Your task to perform on an android device: uninstall "Clock" Image 0: 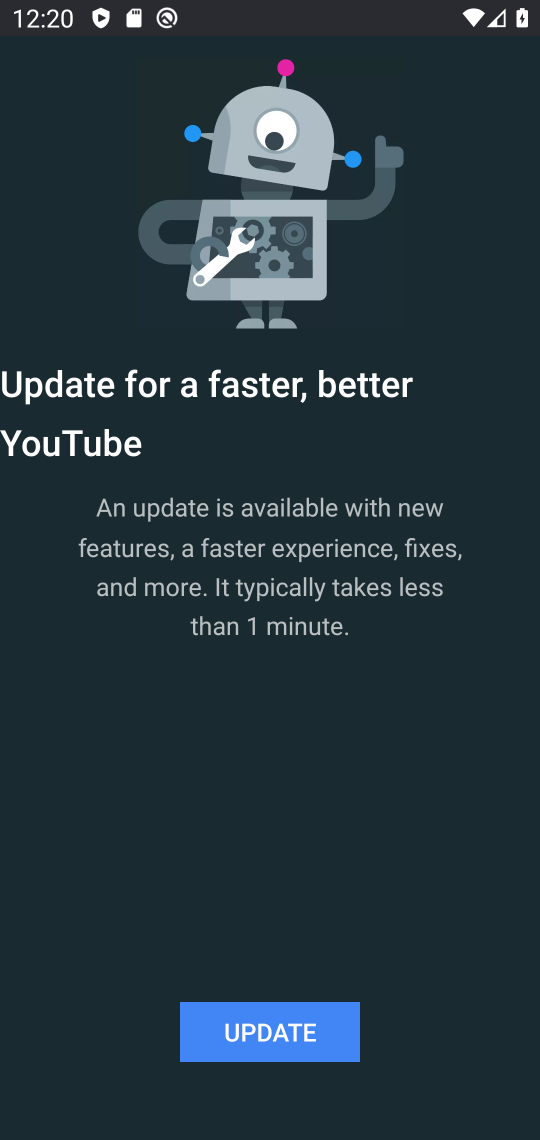
Step 0: press home button
Your task to perform on an android device: uninstall "Clock" Image 1: 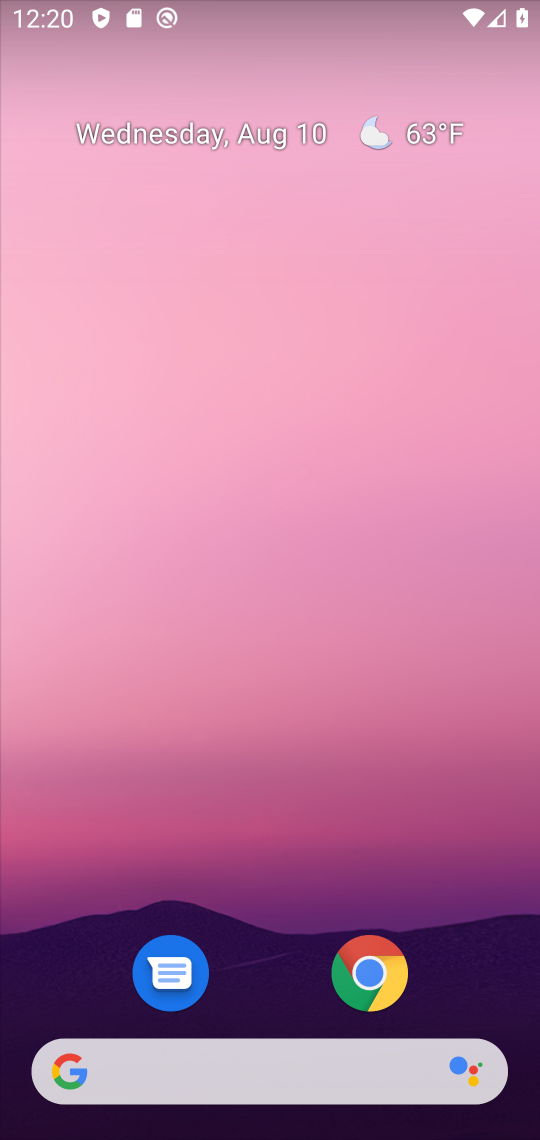
Step 1: drag from (244, 859) to (350, 185)
Your task to perform on an android device: uninstall "Clock" Image 2: 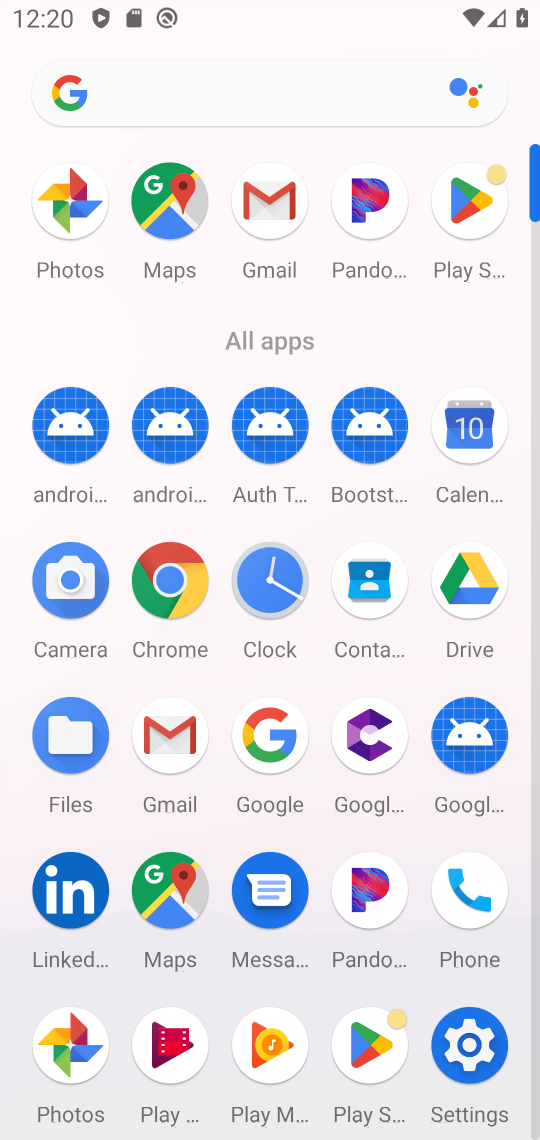
Step 2: click (246, 579)
Your task to perform on an android device: uninstall "Clock" Image 3: 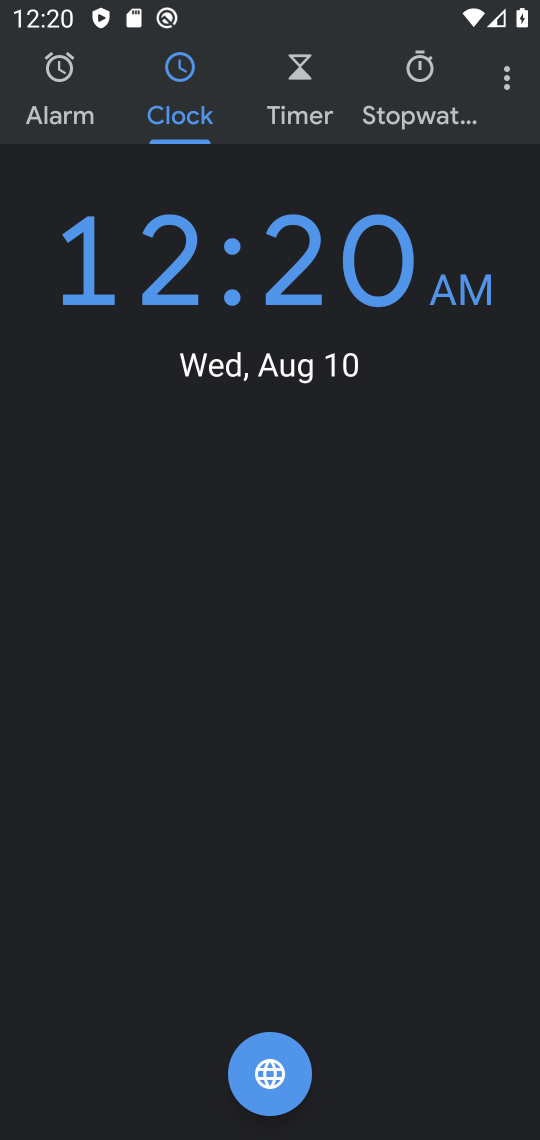
Step 3: click (193, 70)
Your task to perform on an android device: uninstall "Clock" Image 4: 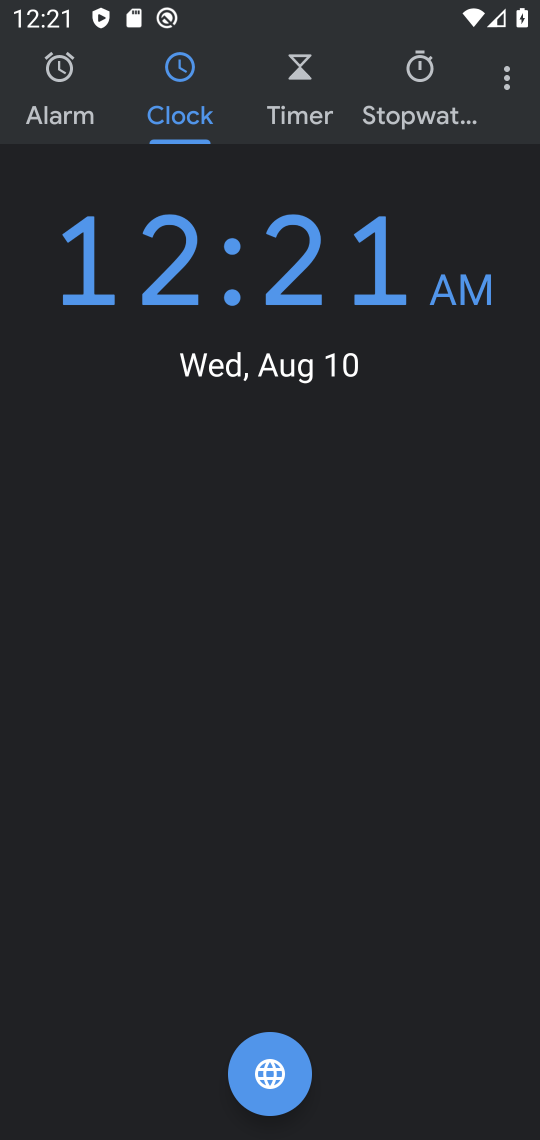
Step 4: press back button
Your task to perform on an android device: uninstall "Clock" Image 5: 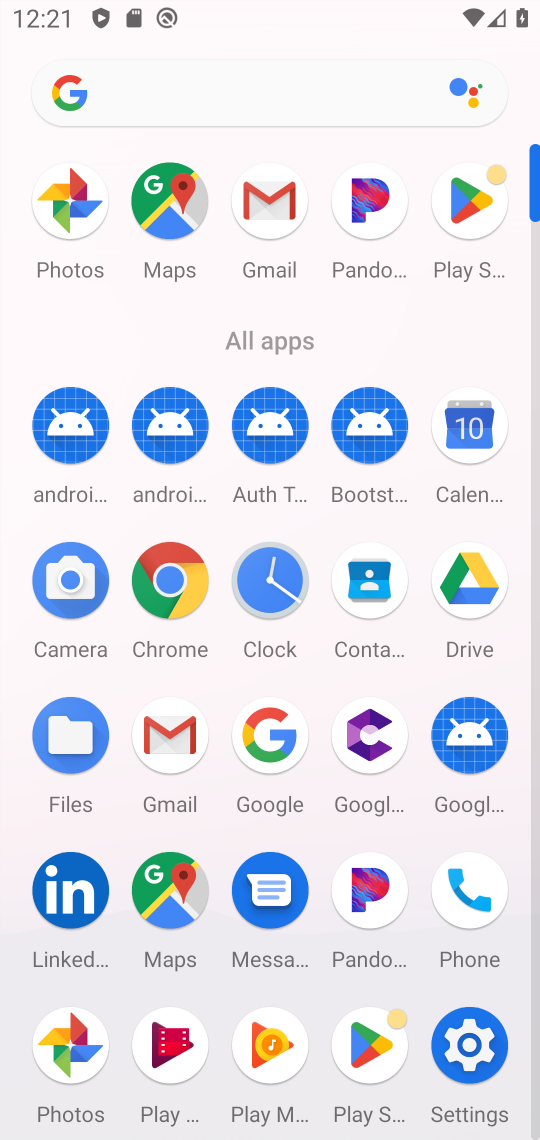
Step 5: click (475, 212)
Your task to perform on an android device: uninstall "Clock" Image 6: 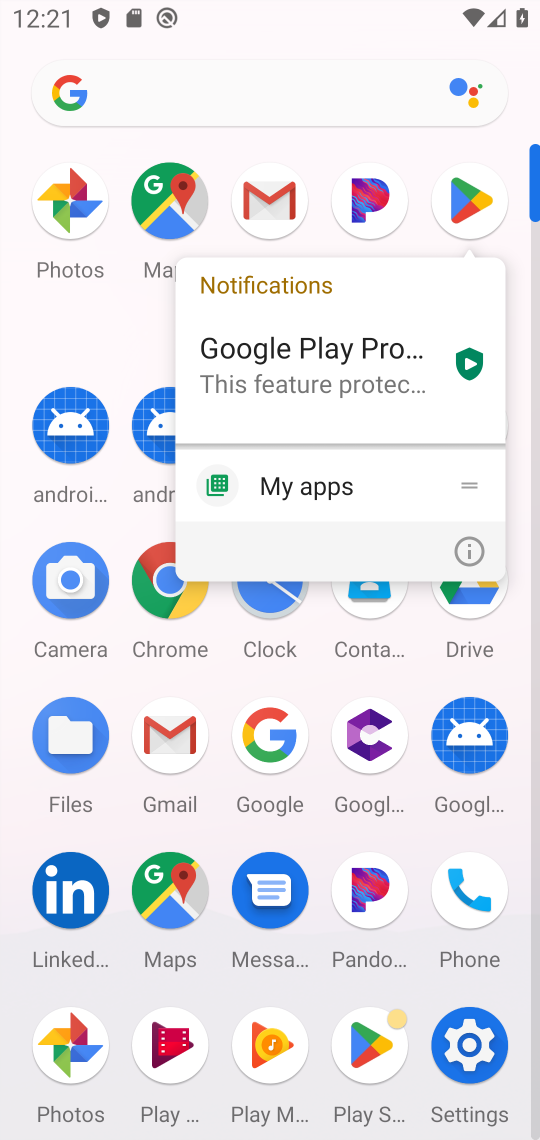
Step 6: click (475, 212)
Your task to perform on an android device: uninstall "Clock" Image 7: 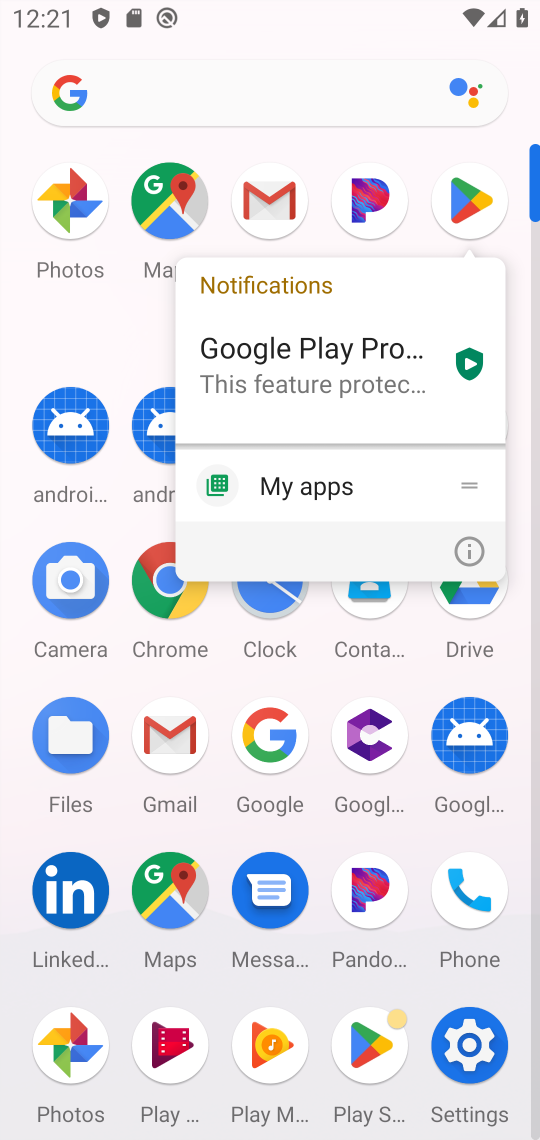
Step 7: click (460, 193)
Your task to perform on an android device: uninstall "Clock" Image 8: 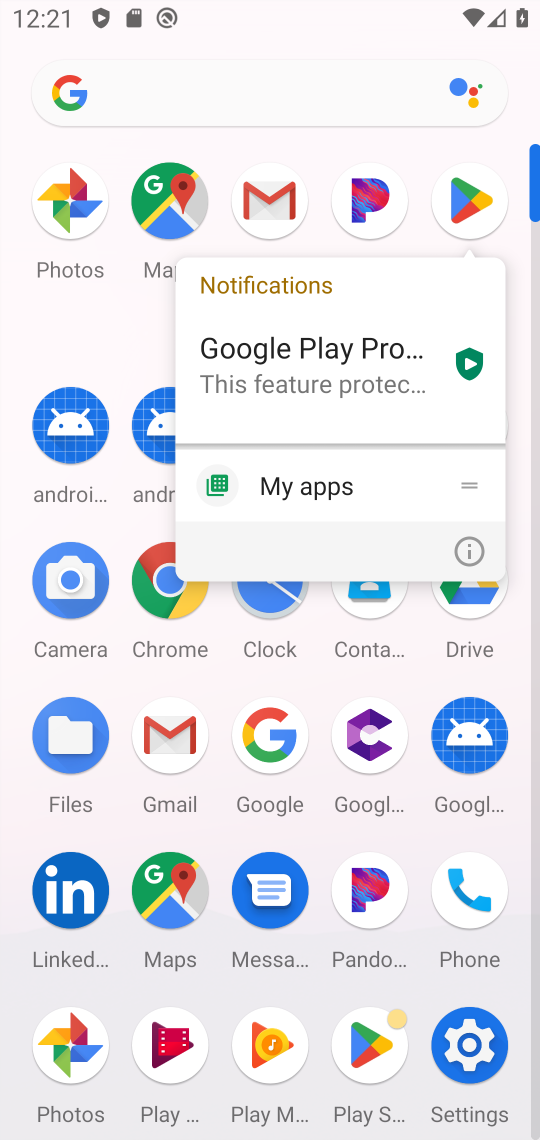
Step 8: click (460, 205)
Your task to perform on an android device: uninstall "Clock" Image 9: 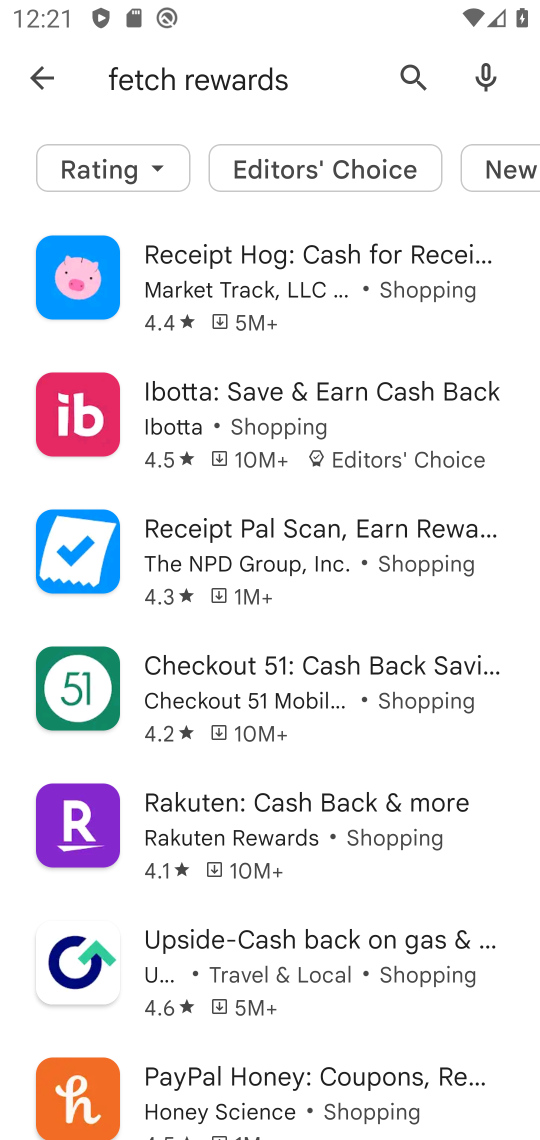
Step 9: click (416, 71)
Your task to perform on an android device: uninstall "Clock" Image 10: 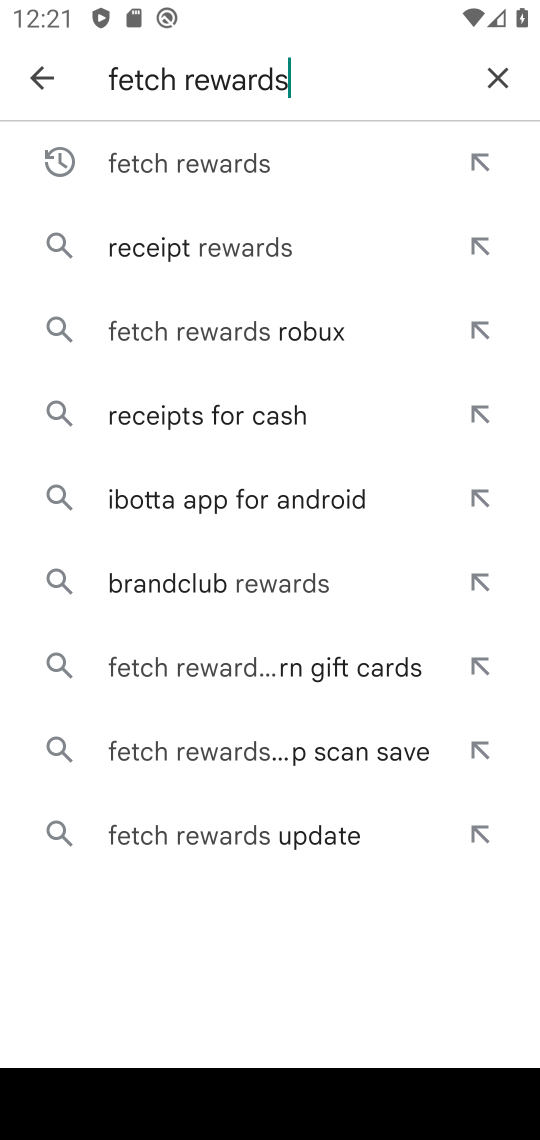
Step 10: click (508, 73)
Your task to perform on an android device: uninstall "Clock" Image 11: 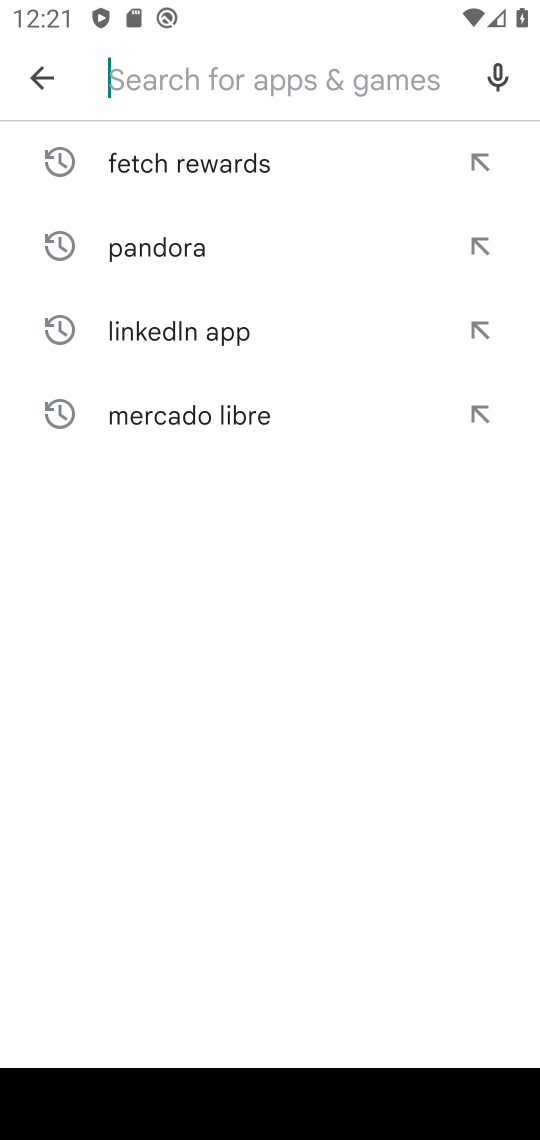
Step 11: click (186, 80)
Your task to perform on an android device: uninstall "Clock" Image 12: 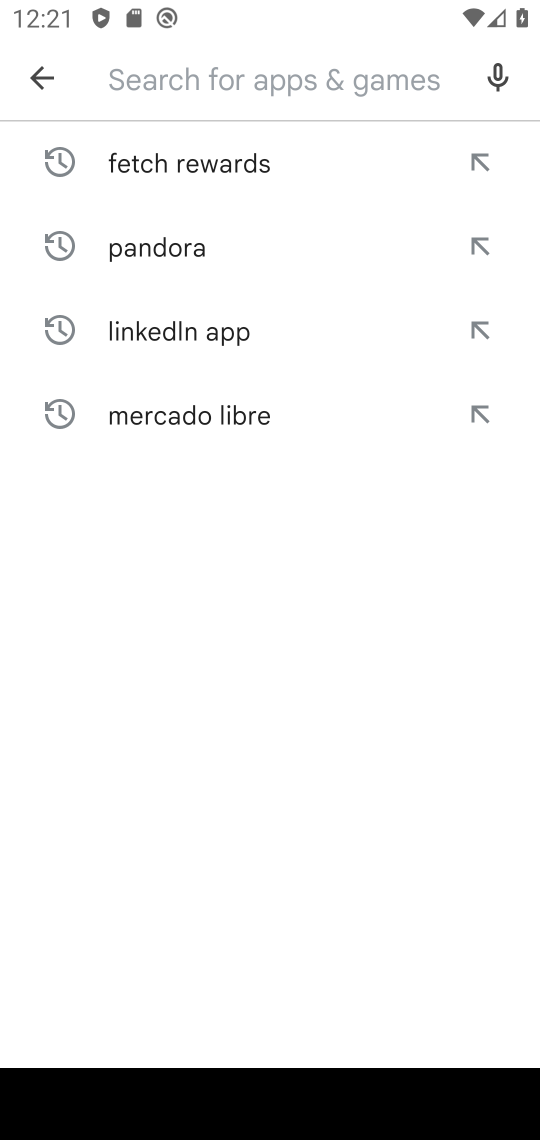
Step 12: type "clock"
Your task to perform on an android device: uninstall "Clock" Image 13: 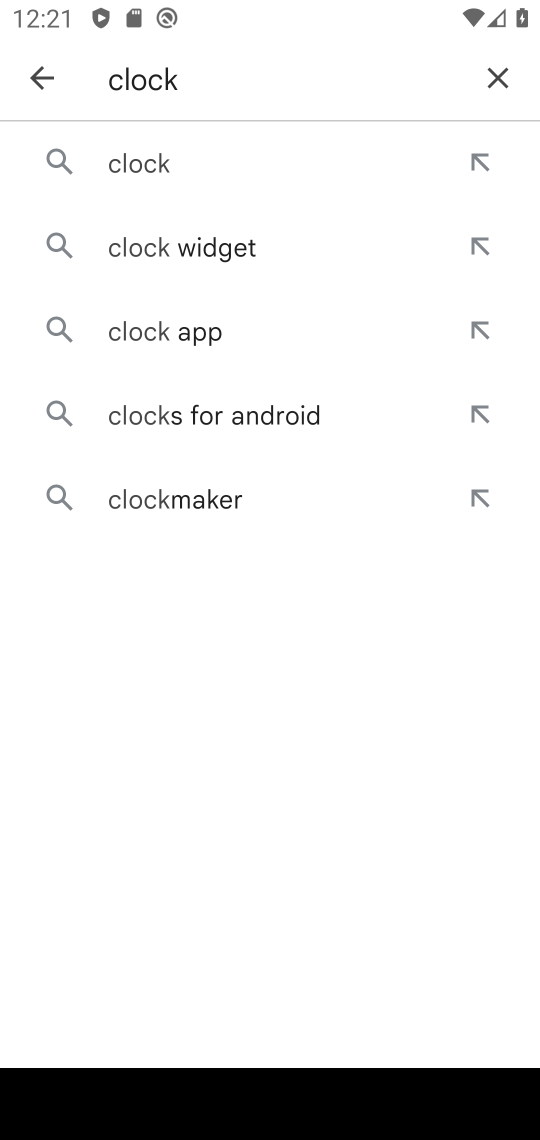
Step 13: click (195, 161)
Your task to perform on an android device: uninstall "Clock" Image 14: 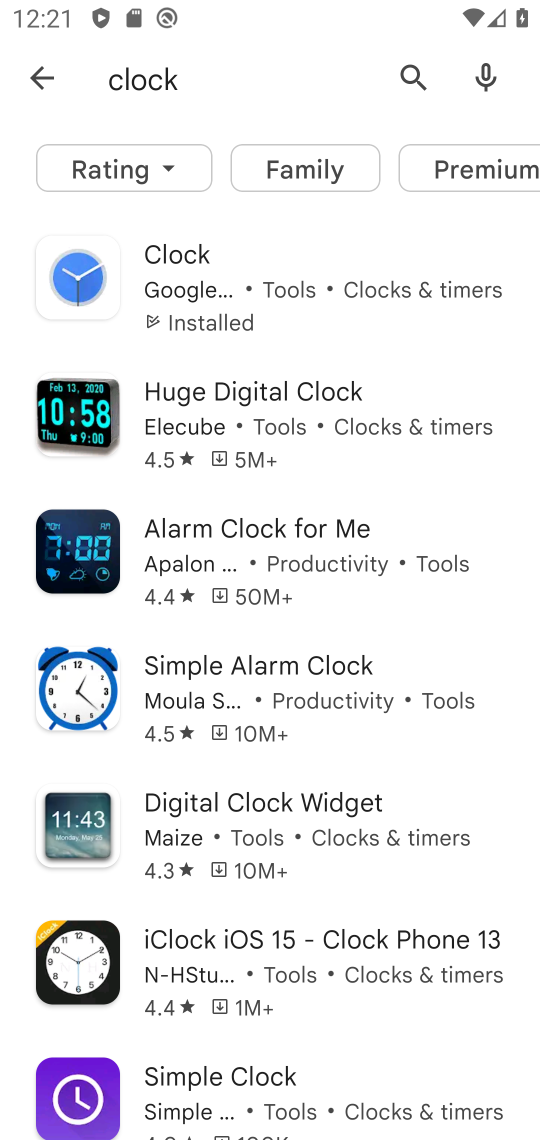
Step 14: click (221, 277)
Your task to perform on an android device: uninstall "Clock" Image 15: 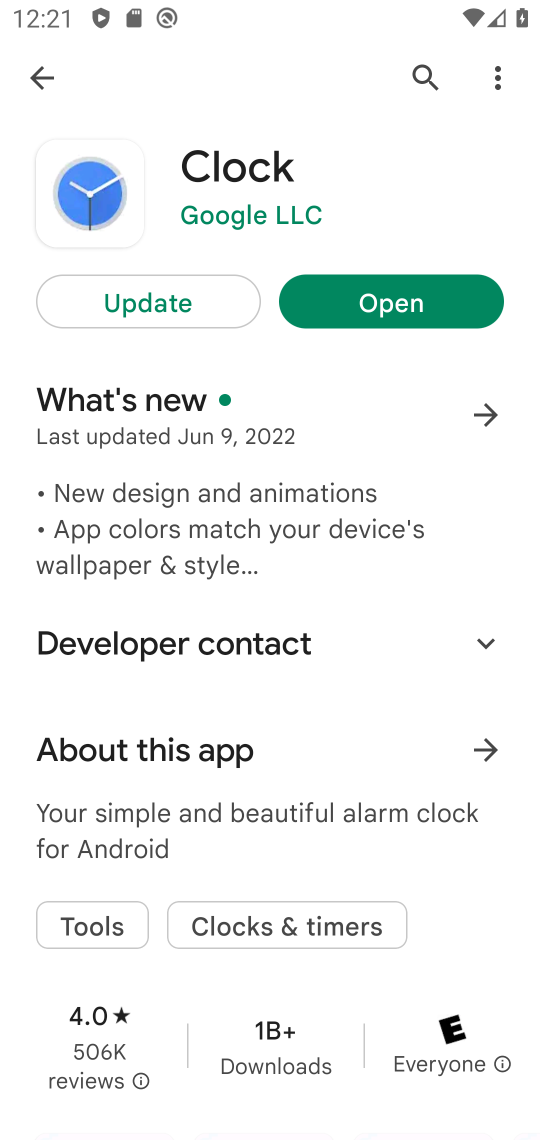
Step 15: task complete